Your task to perform on an android device: turn on airplane mode Image 0: 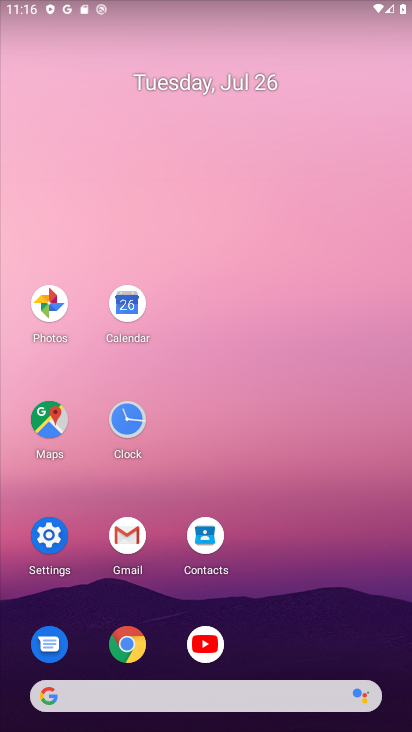
Step 0: click (49, 531)
Your task to perform on an android device: turn on airplane mode Image 1: 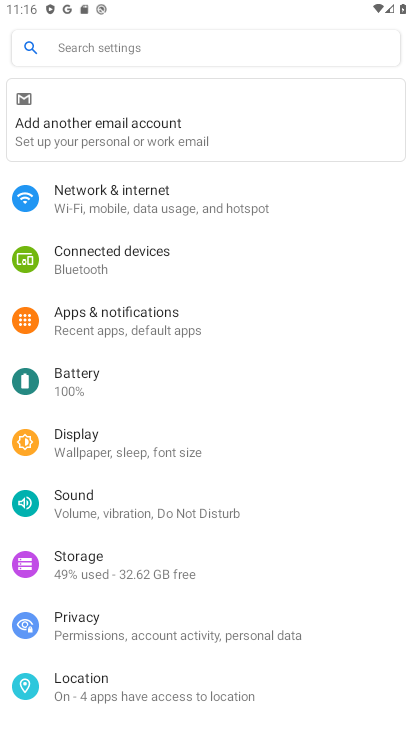
Step 1: click (114, 189)
Your task to perform on an android device: turn on airplane mode Image 2: 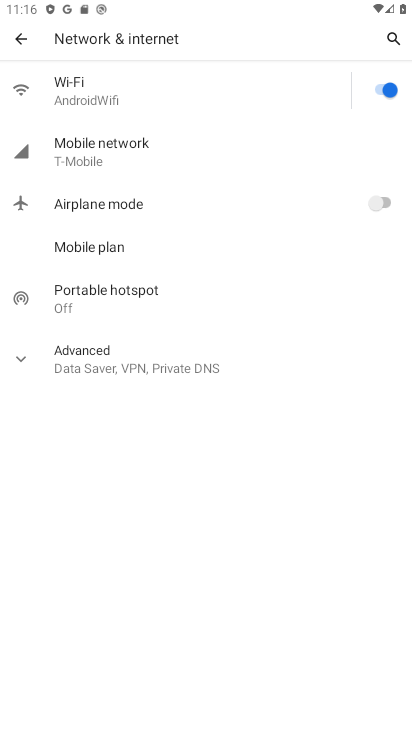
Step 2: click (375, 199)
Your task to perform on an android device: turn on airplane mode Image 3: 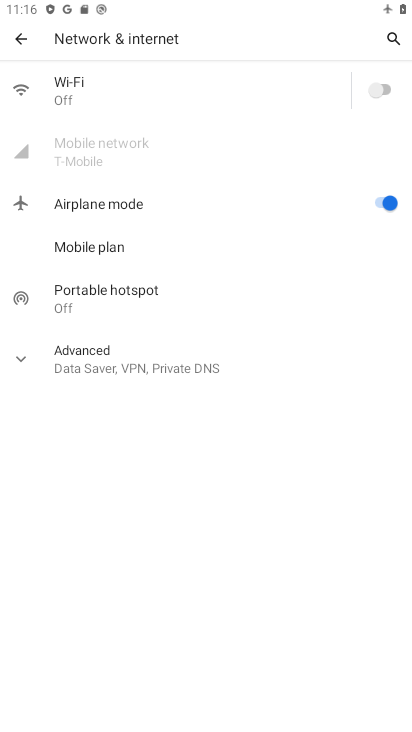
Step 3: task complete